Your task to perform on an android device: delete location history Image 0: 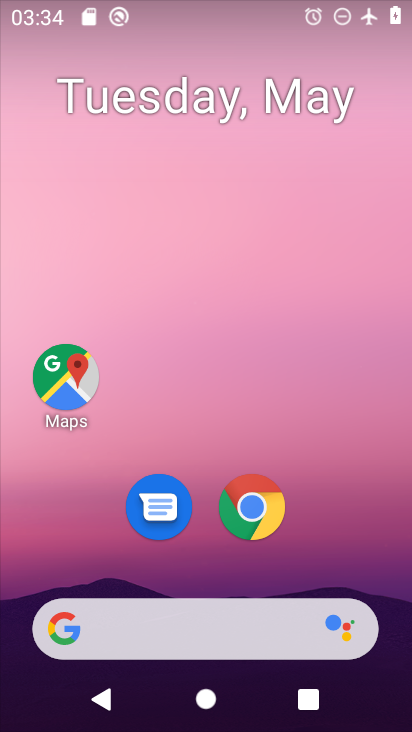
Step 0: click (50, 391)
Your task to perform on an android device: delete location history Image 1: 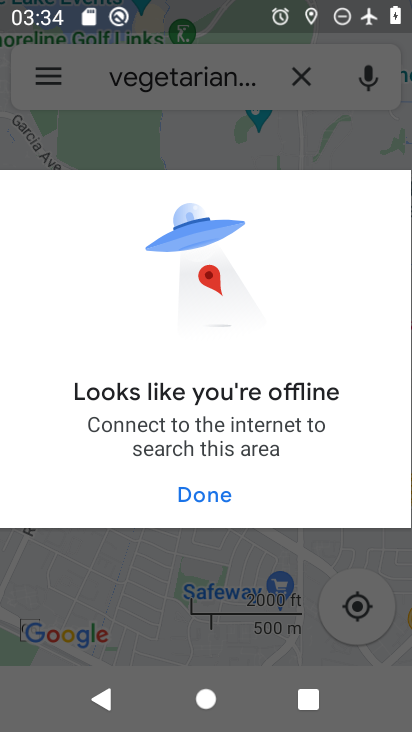
Step 1: task complete